Your task to perform on an android device: open chrome privacy settings Image 0: 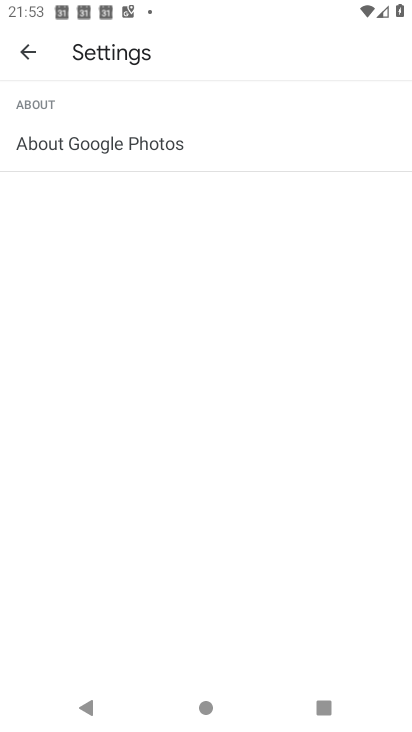
Step 0: press home button
Your task to perform on an android device: open chrome privacy settings Image 1: 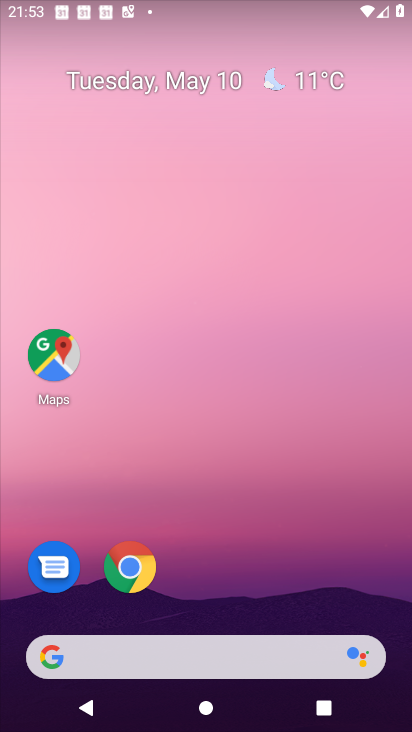
Step 1: click (143, 560)
Your task to perform on an android device: open chrome privacy settings Image 2: 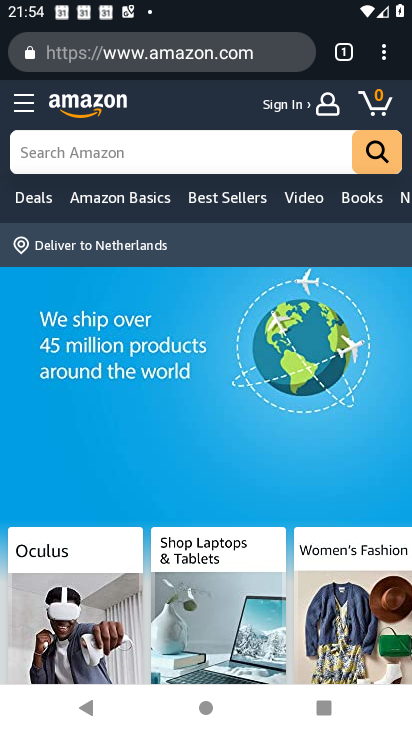
Step 2: click (380, 51)
Your task to perform on an android device: open chrome privacy settings Image 3: 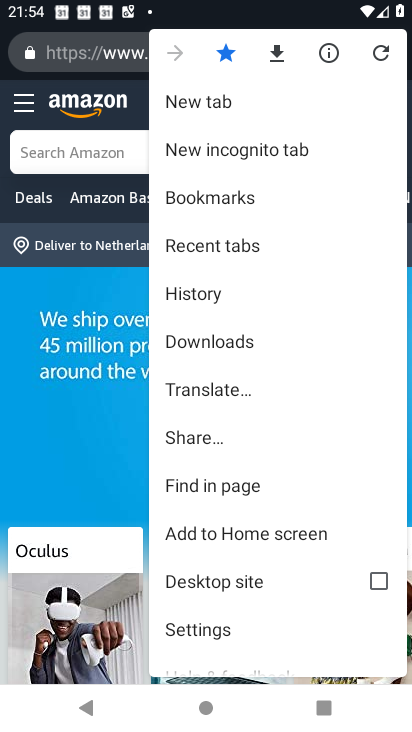
Step 3: click (188, 634)
Your task to perform on an android device: open chrome privacy settings Image 4: 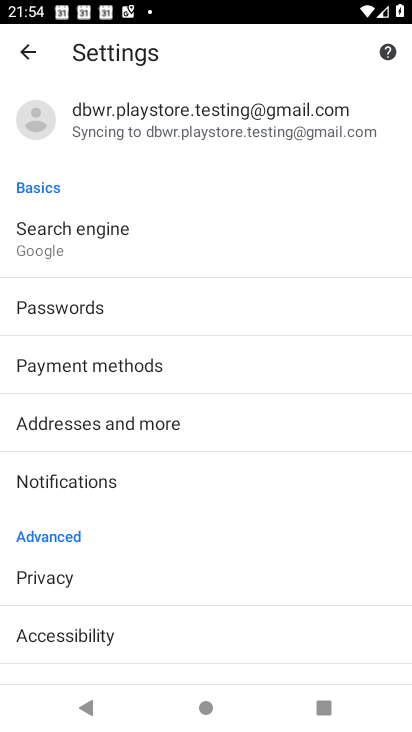
Step 4: click (63, 568)
Your task to perform on an android device: open chrome privacy settings Image 5: 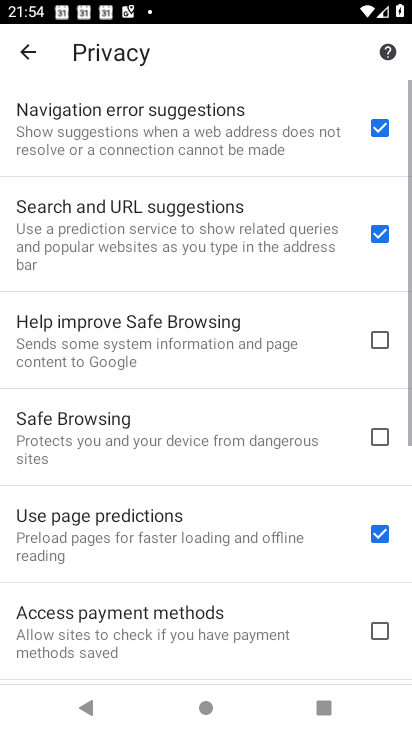
Step 5: task complete